Your task to perform on an android device: toggle notifications settings in the gmail app Image 0: 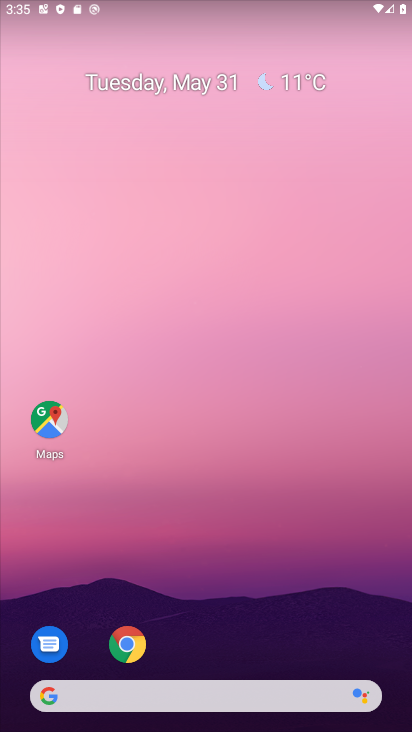
Step 0: drag from (275, 638) to (281, 185)
Your task to perform on an android device: toggle notifications settings in the gmail app Image 1: 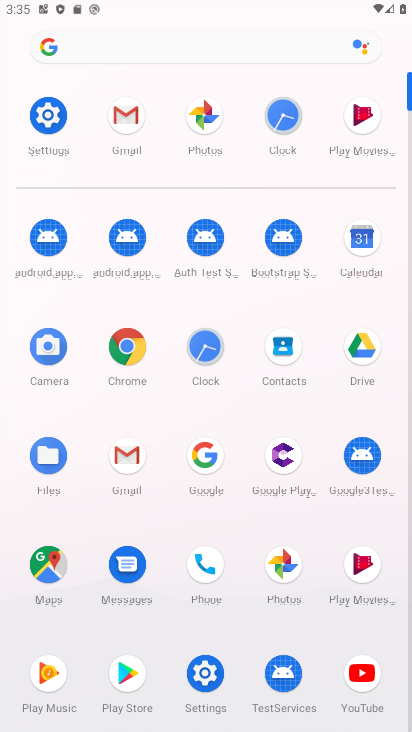
Step 1: click (124, 117)
Your task to perform on an android device: toggle notifications settings in the gmail app Image 2: 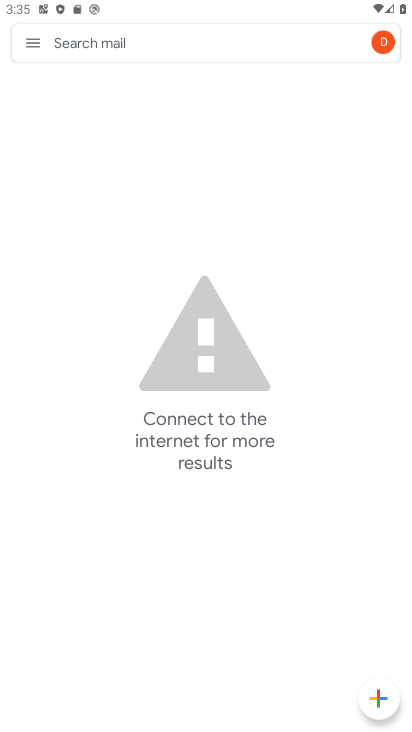
Step 2: click (24, 33)
Your task to perform on an android device: toggle notifications settings in the gmail app Image 3: 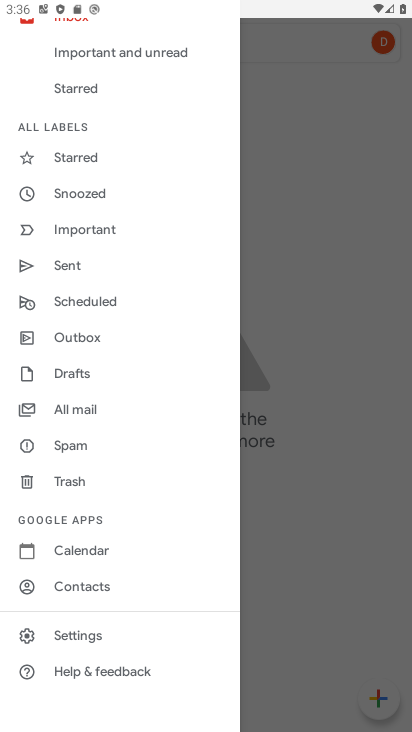
Step 3: click (93, 625)
Your task to perform on an android device: toggle notifications settings in the gmail app Image 4: 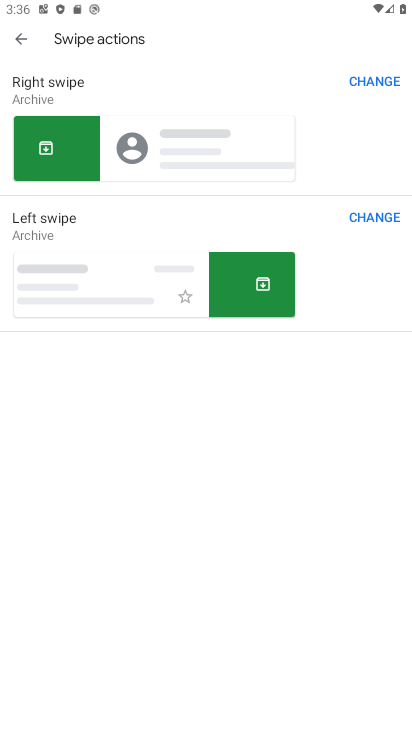
Step 4: click (16, 34)
Your task to perform on an android device: toggle notifications settings in the gmail app Image 5: 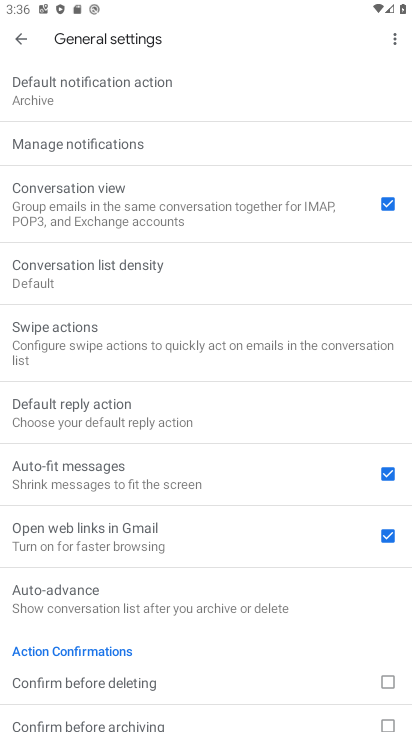
Step 5: task complete